Your task to perform on an android device: delete browsing data in the chrome app Image 0: 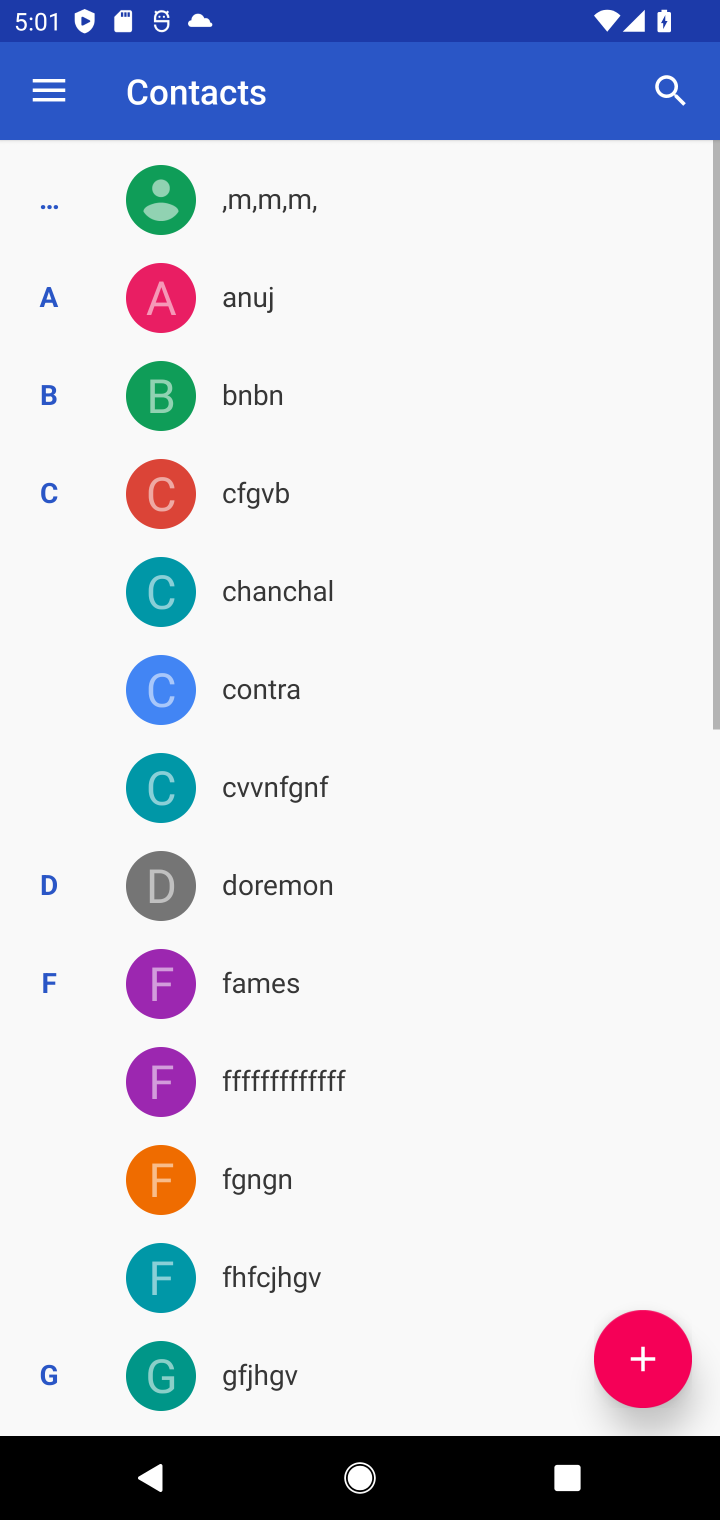
Step 0: press home button
Your task to perform on an android device: delete browsing data in the chrome app Image 1: 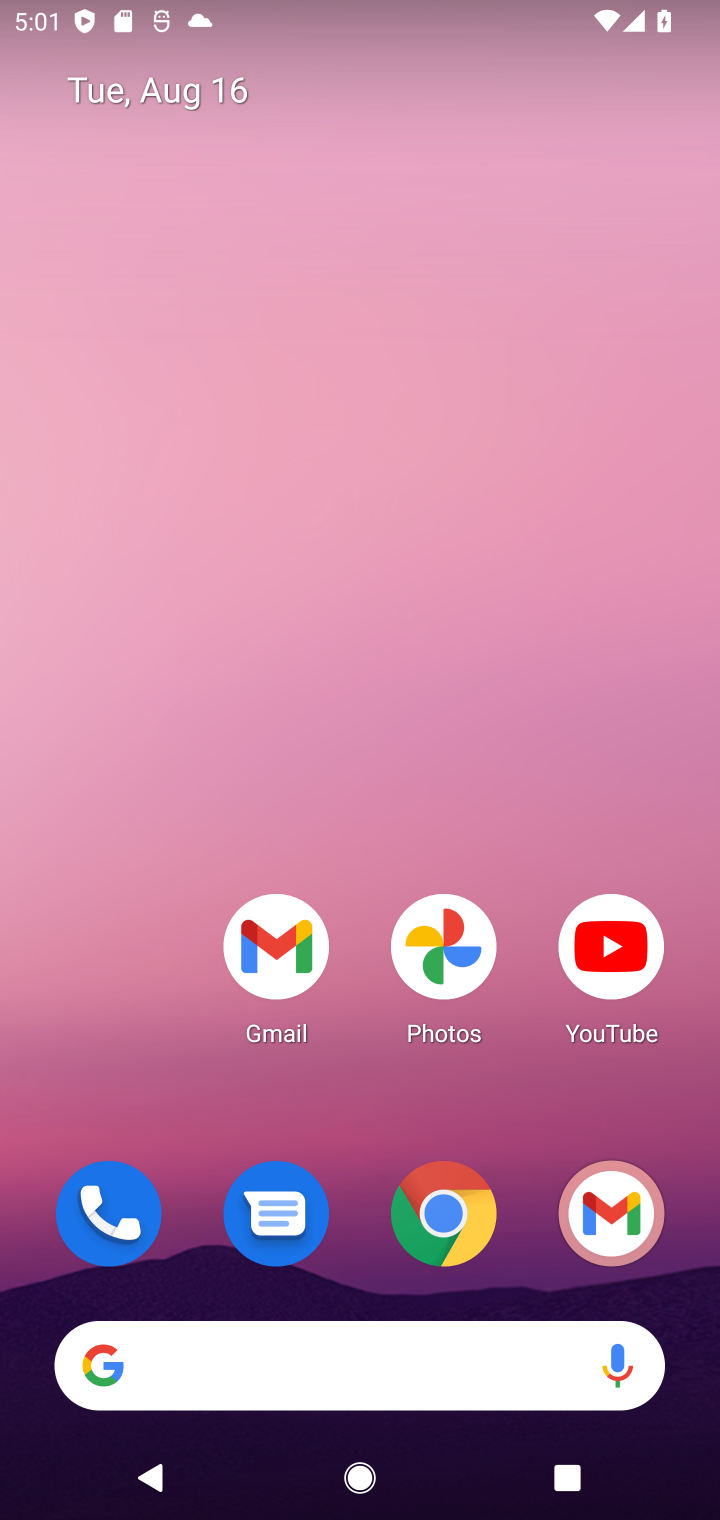
Step 1: drag from (371, 1085) to (469, 14)
Your task to perform on an android device: delete browsing data in the chrome app Image 2: 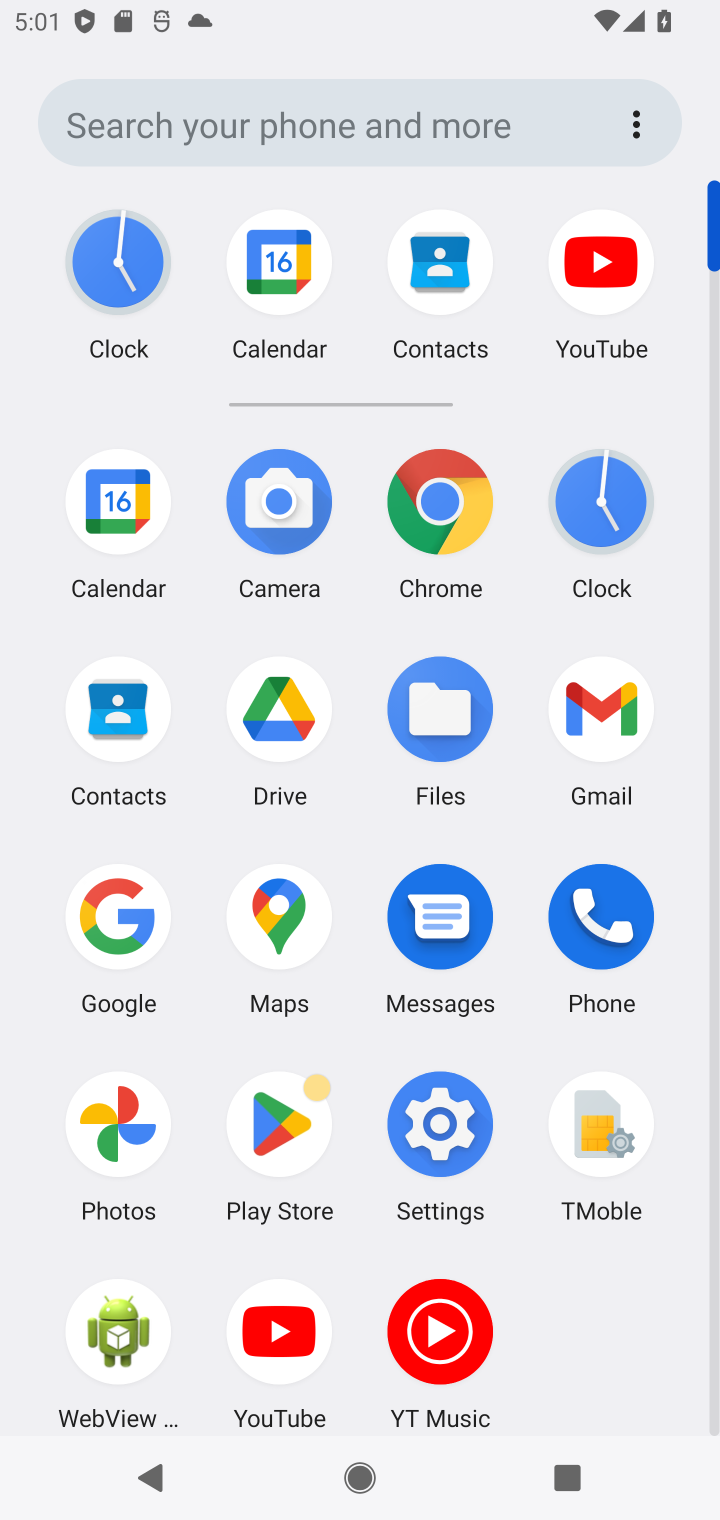
Step 2: click (437, 505)
Your task to perform on an android device: delete browsing data in the chrome app Image 3: 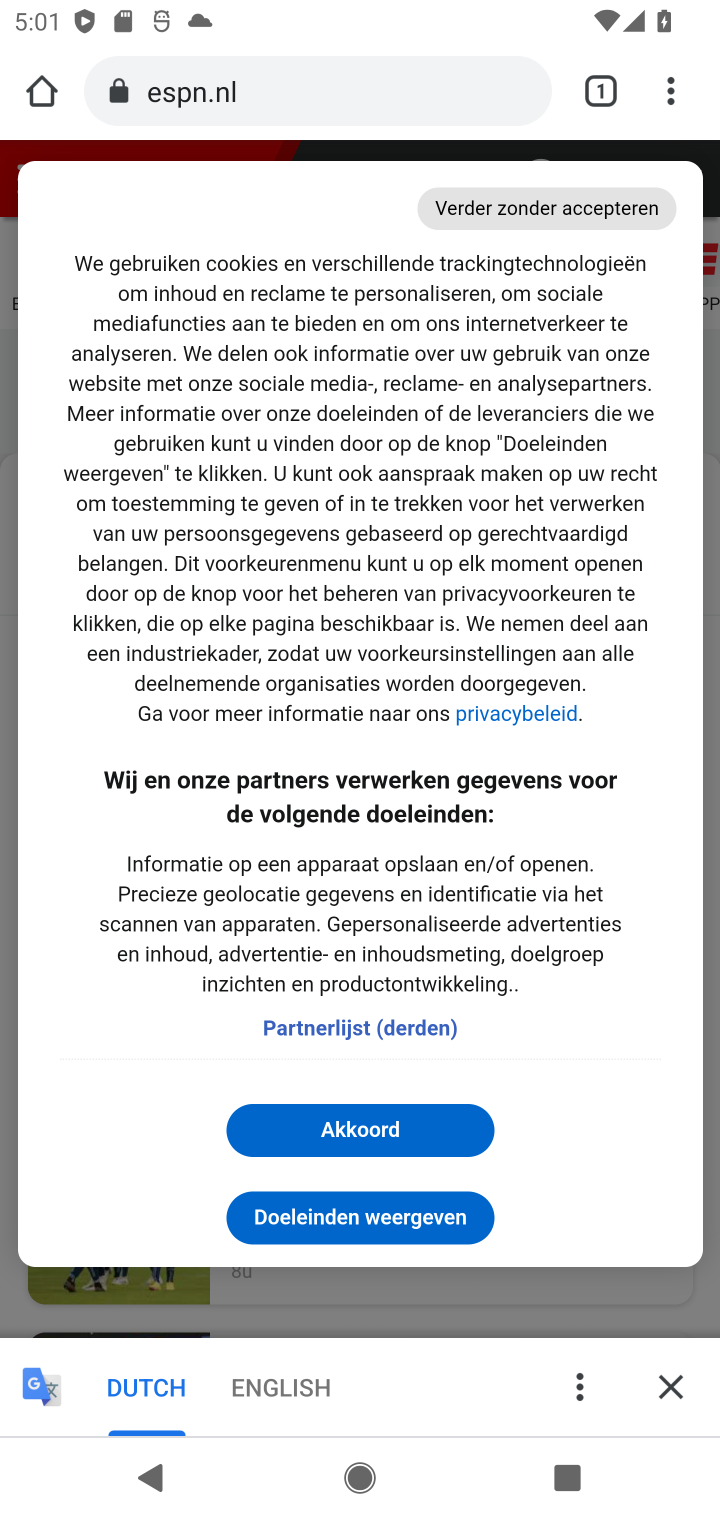
Step 3: drag from (660, 49) to (388, 459)
Your task to perform on an android device: delete browsing data in the chrome app Image 4: 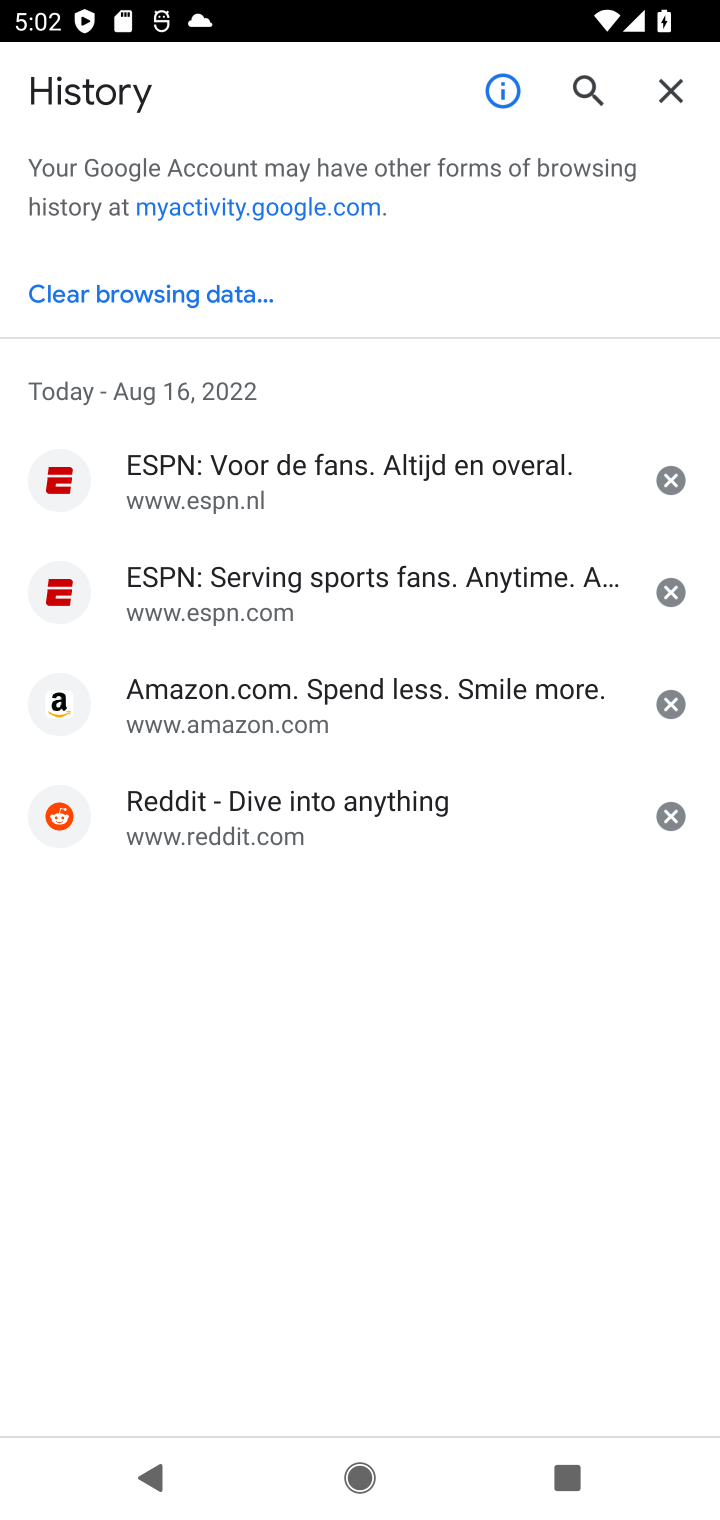
Step 4: click (231, 281)
Your task to perform on an android device: delete browsing data in the chrome app Image 5: 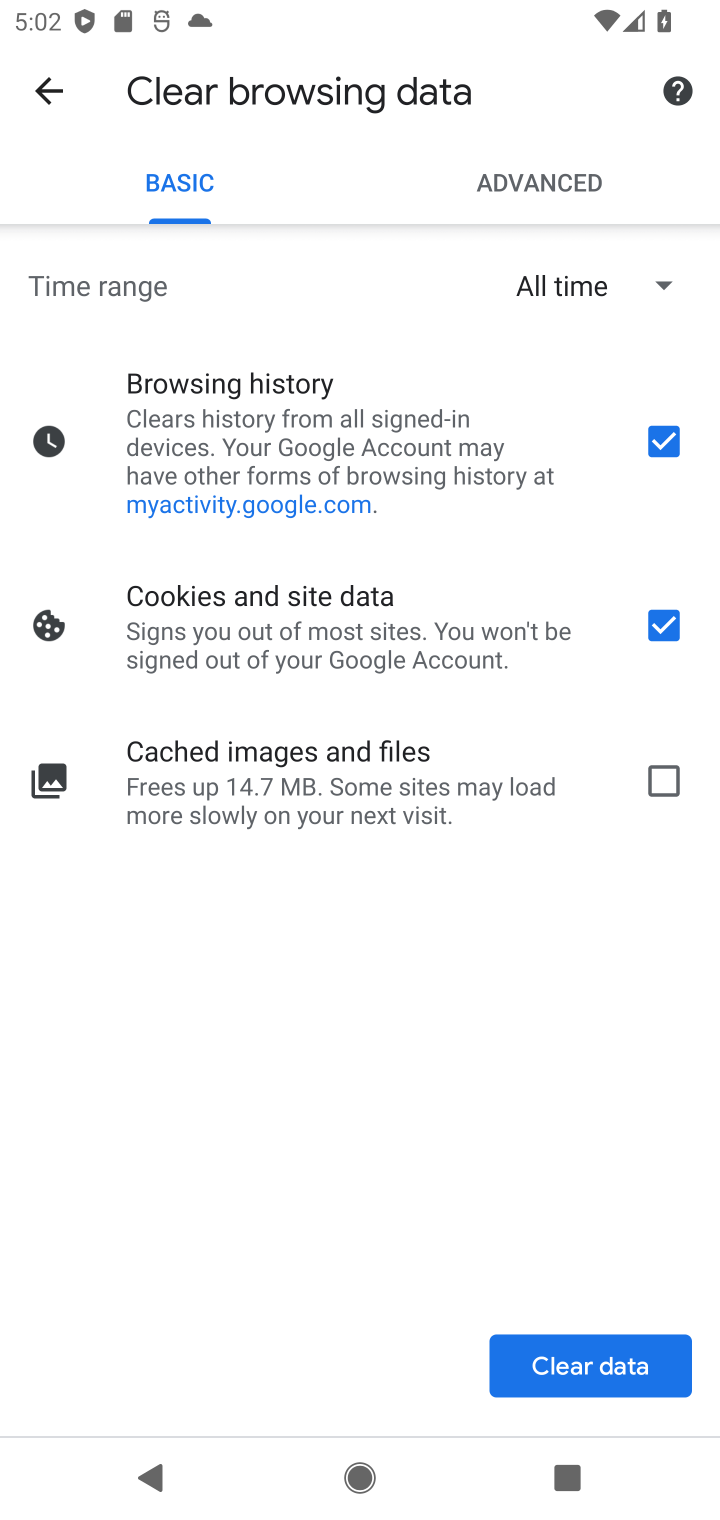
Step 5: click (655, 770)
Your task to perform on an android device: delete browsing data in the chrome app Image 6: 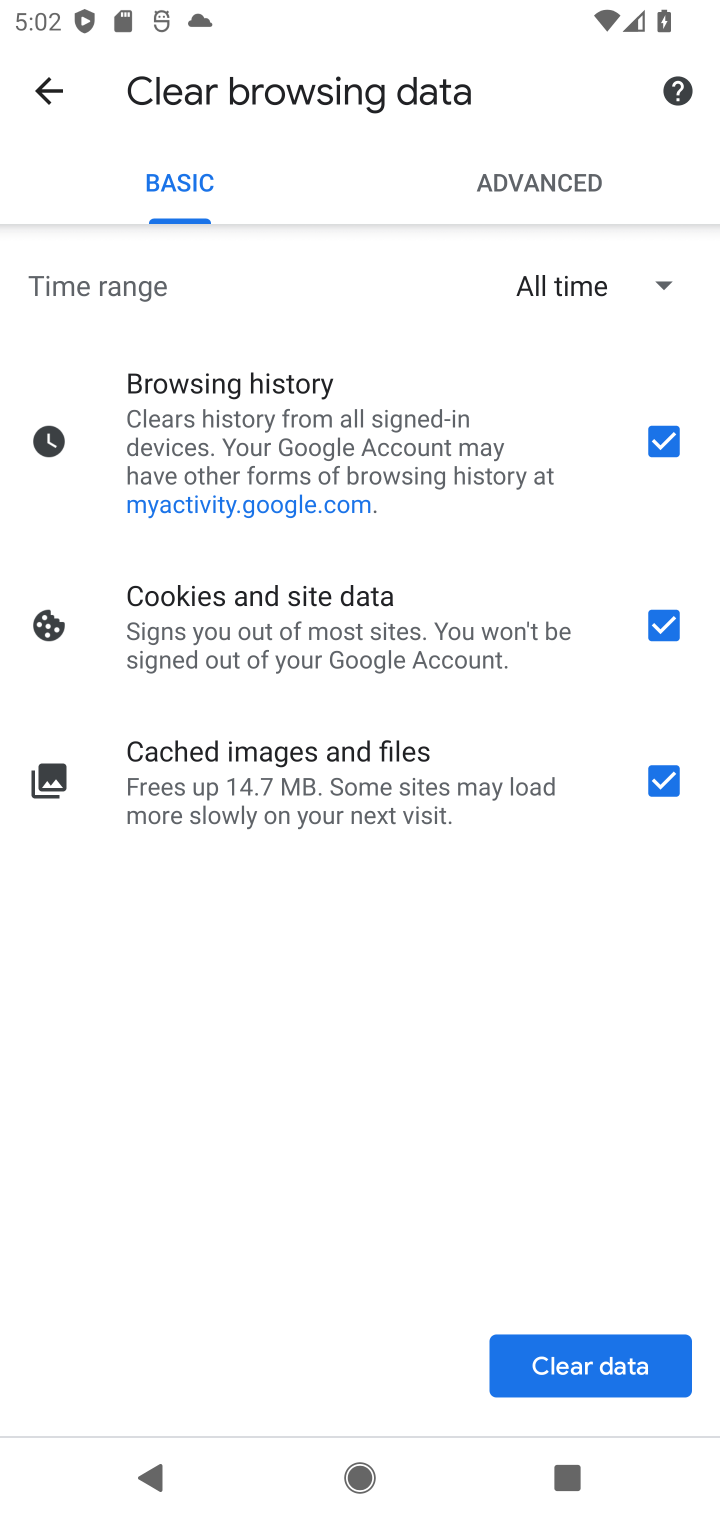
Step 6: click (565, 1371)
Your task to perform on an android device: delete browsing data in the chrome app Image 7: 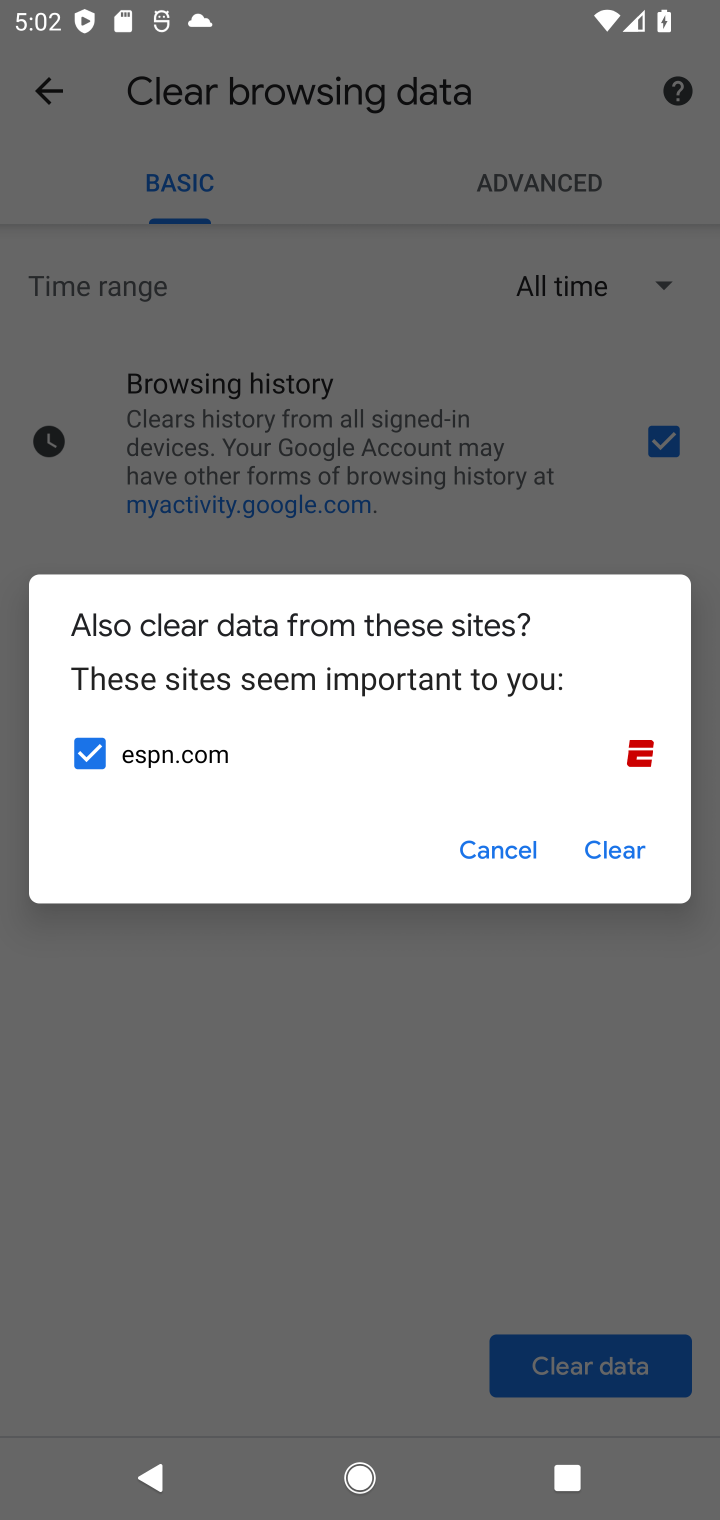
Step 7: click (625, 855)
Your task to perform on an android device: delete browsing data in the chrome app Image 8: 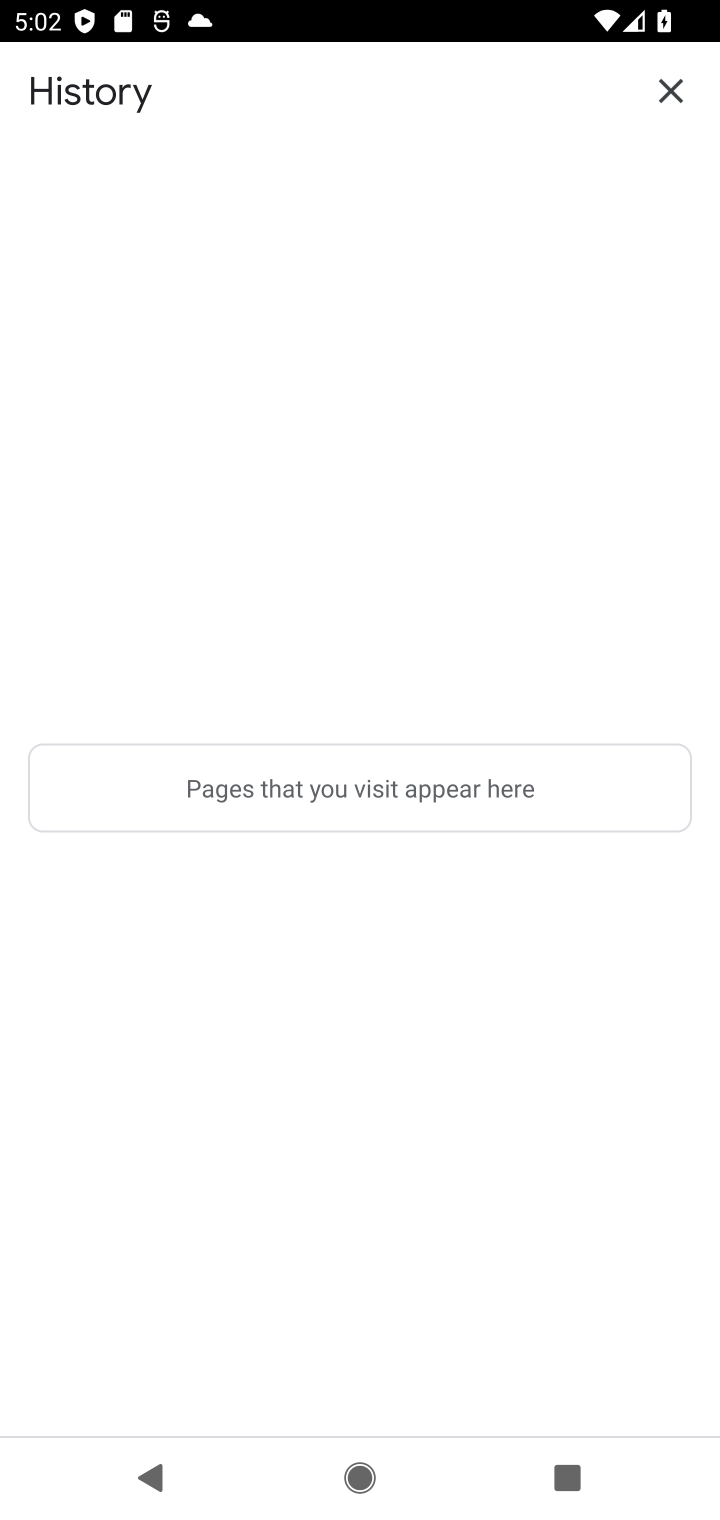
Step 8: task complete